Your task to perform on an android device: allow notifications from all sites in the chrome app Image 0: 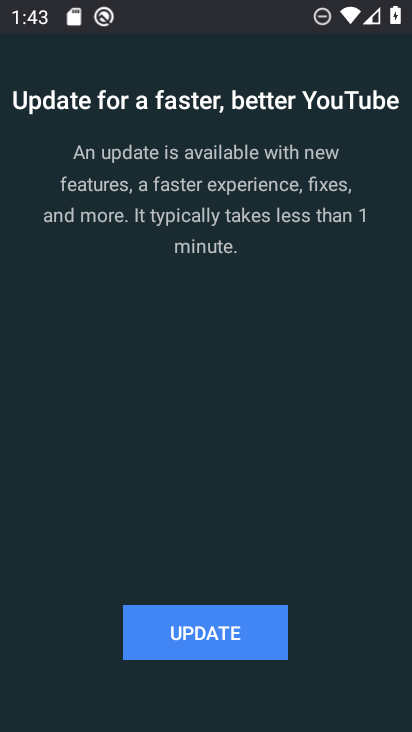
Step 0: press home button
Your task to perform on an android device: allow notifications from all sites in the chrome app Image 1: 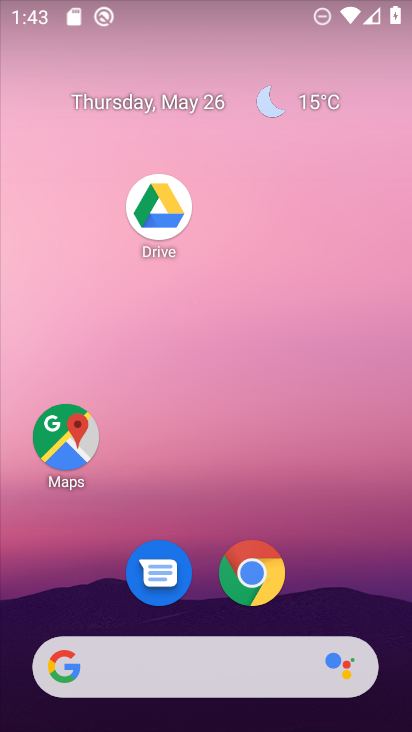
Step 1: click (261, 565)
Your task to perform on an android device: allow notifications from all sites in the chrome app Image 2: 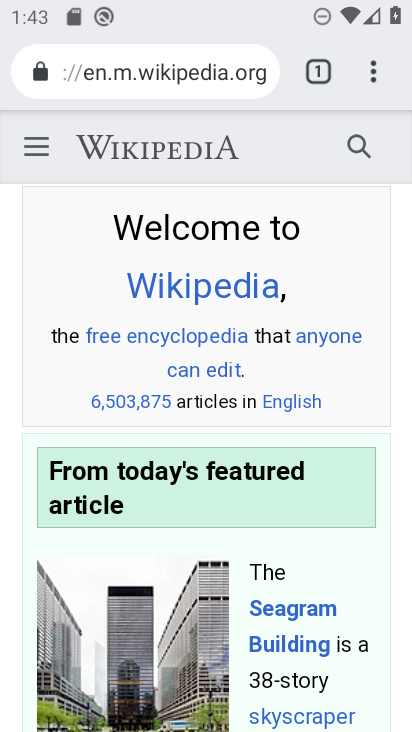
Step 2: click (378, 71)
Your task to perform on an android device: allow notifications from all sites in the chrome app Image 3: 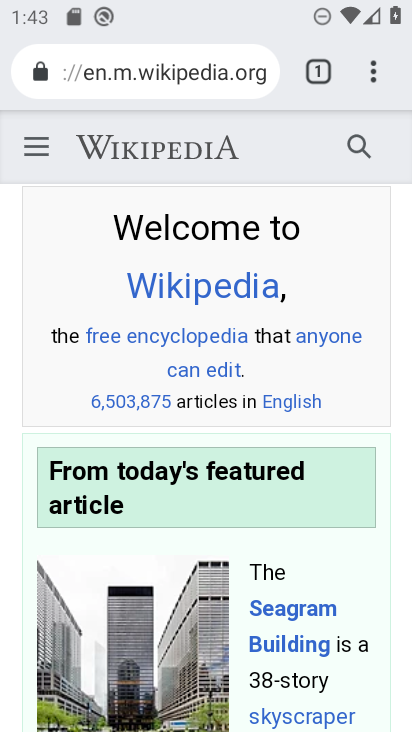
Step 3: click (367, 74)
Your task to perform on an android device: allow notifications from all sites in the chrome app Image 4: 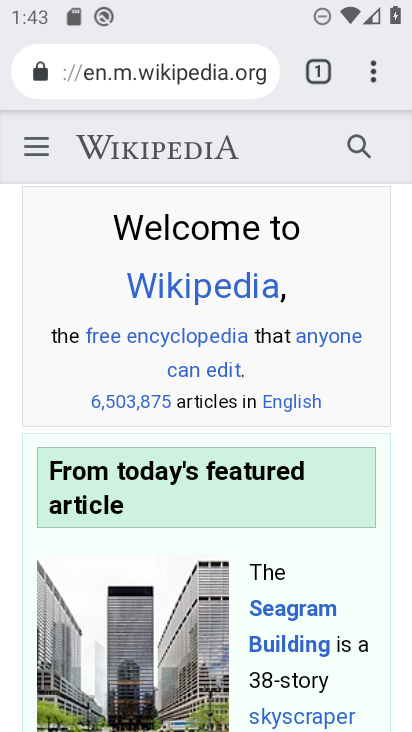
Step 4: click (372, 81)
Your task to perform on an android device: allow notifications from all sites in the chrome app Image 5: 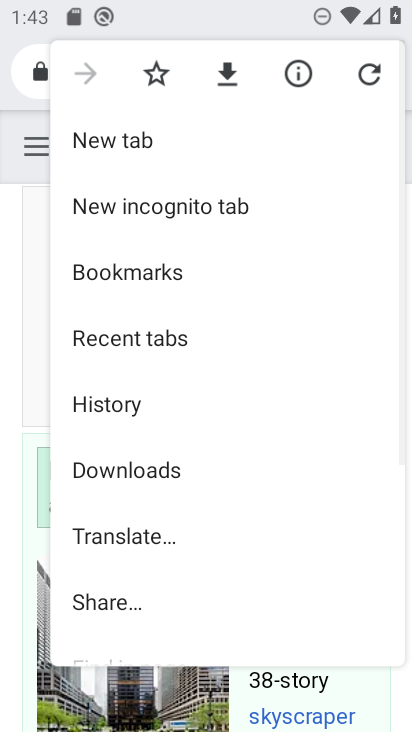
Step 5: drag from (274, 445) to (242, 208)
Your task to perform on an android device: allow notifications from all sites in the chrome app Image 6: 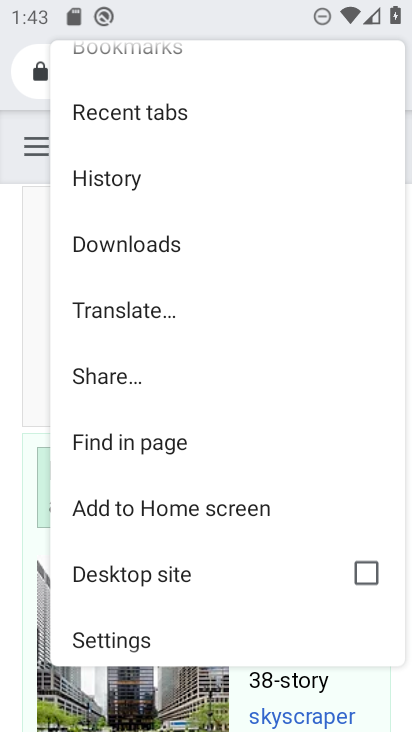
Step 6: click (139, 633)
Your task to perform on an android device: allow notifications from all sites in the chrome app Image 7: 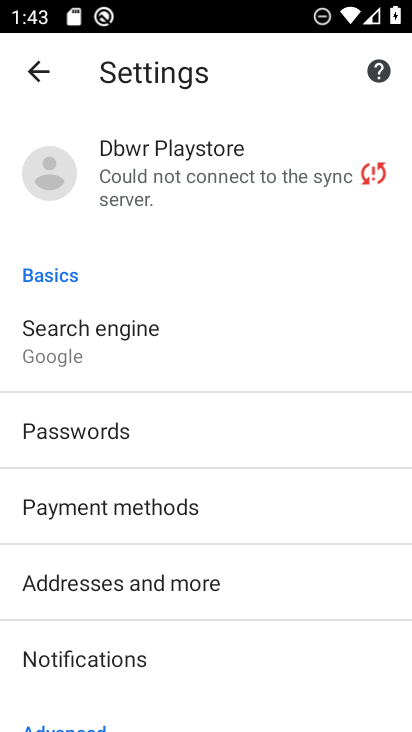
Step 7: click (133, 648)
Your task to perform on an android device: allow notifications from all sites in the chrome app Image 8: 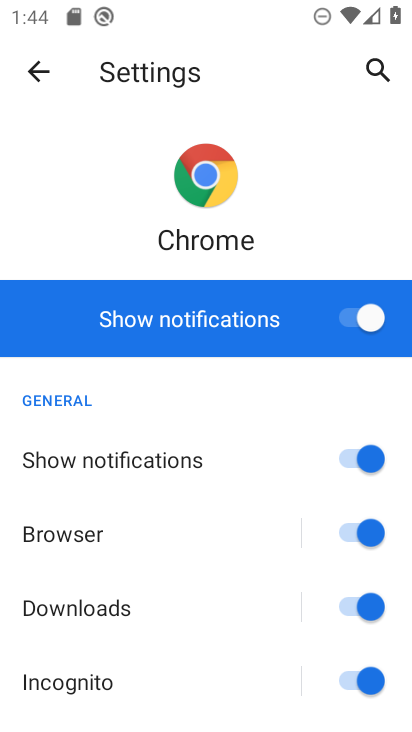
Step 8: task complete